Your task to perform on an android device: Open battery settings Image 0: 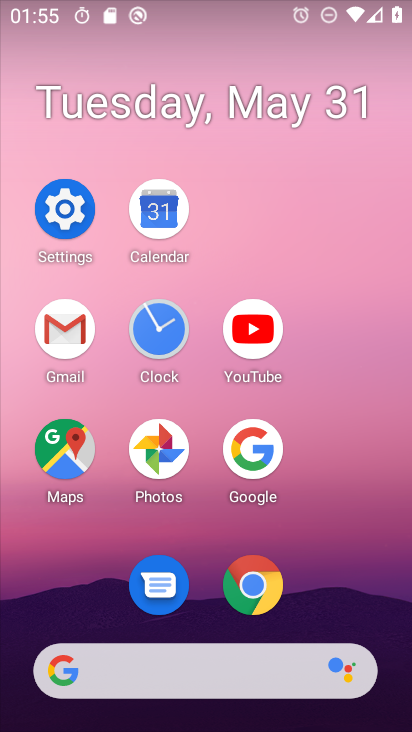
Step 0: click (53, 198)
Your task to perform on an android device: Open battery settings Image 1: 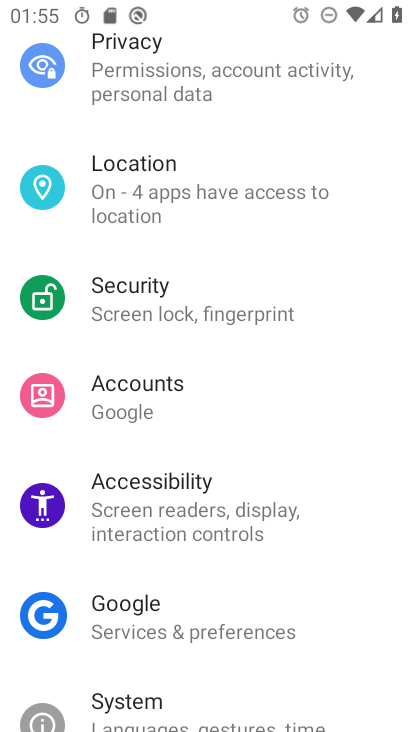
Step 1: drag from (296, 254) to (311, 651)
Your task to perform on an android device: Open battery settings Image 2: 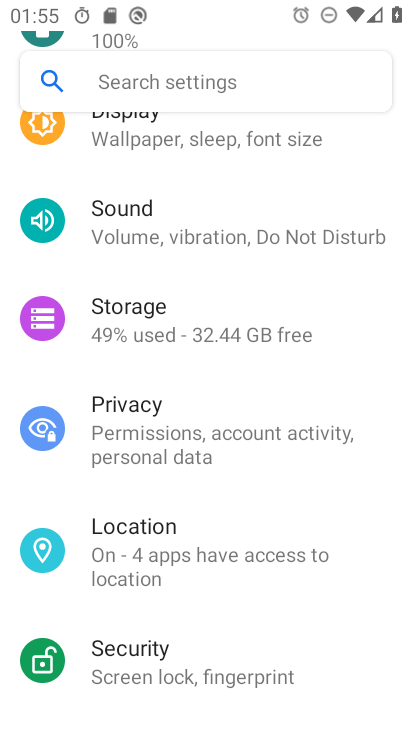
Step 2: drag from (312, 195) to (336, 571)
Your task to perform on an android device: Open battery settings Image 3: 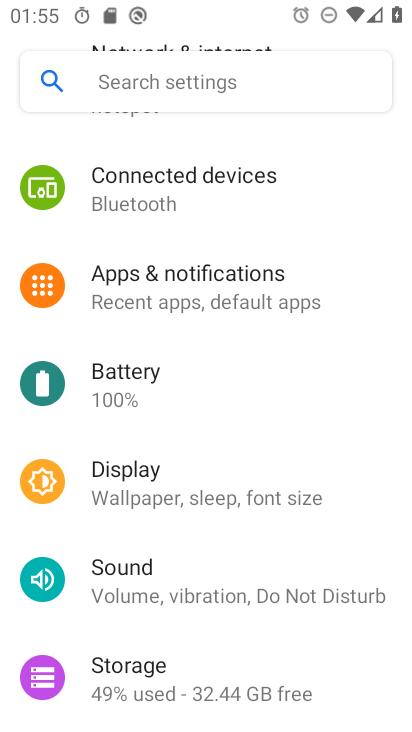
Step 3: click (201, 388)
Your task to perform on an android device: Open battery settings Image 4: 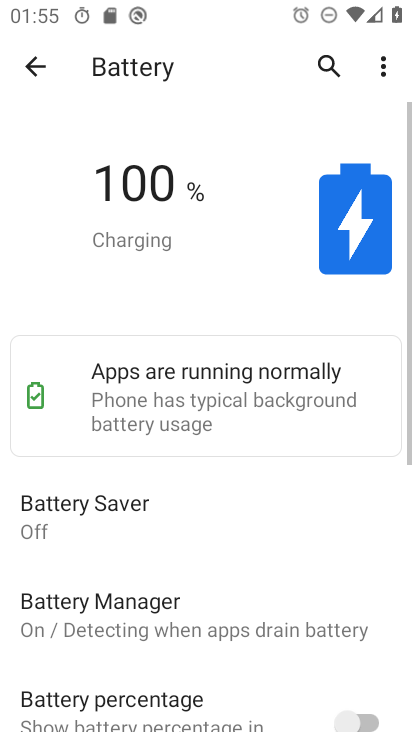
Step 4: task complete